Your task to perform on an android device: turn notification dots off Image 0: 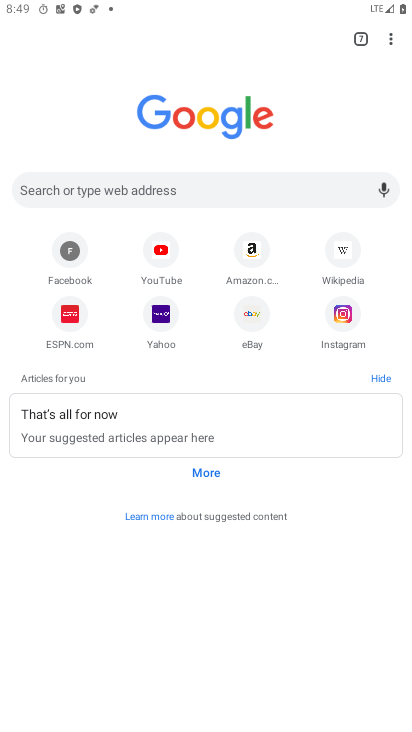
Step 0: press home button
Your task to perform on an android device: turn notification dots off Image 1: 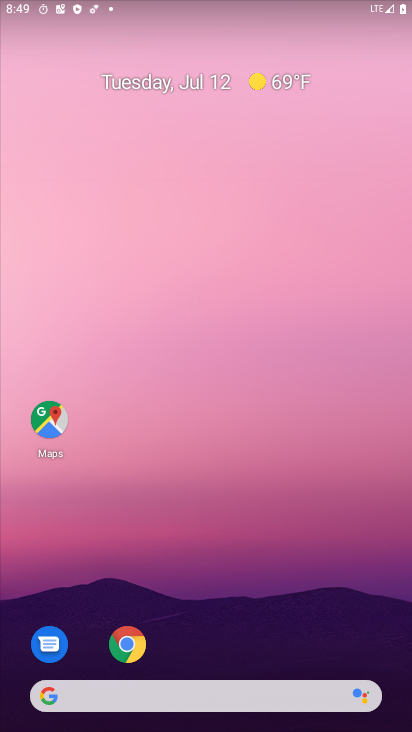
Step 1: drag from (210, 657) to (220, 38)
Your task to perform on an android device: turn notification dots off Image 2: 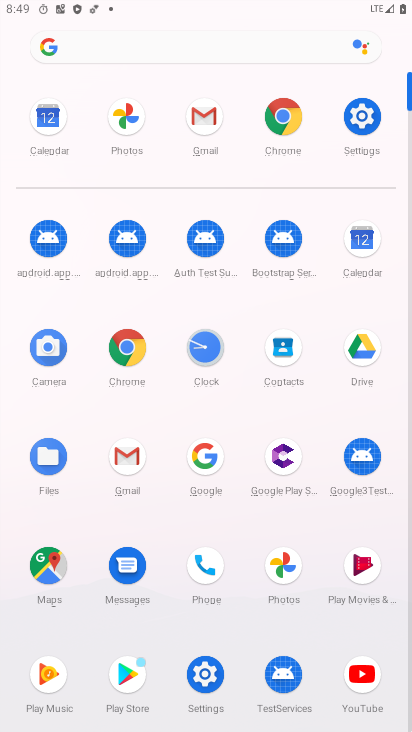
Step 2: click (360, 112)
Your task to perform on an android device: turn notification dots off Image 3: 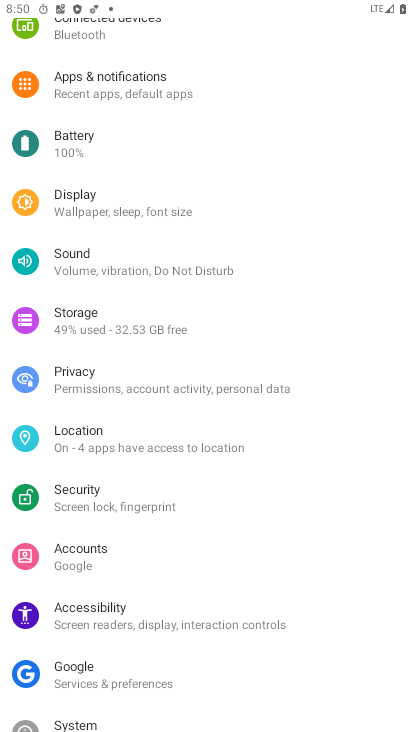
Step 3: click (139, 80)
Your task to perform on an android device: turn notification dots off Image 4: 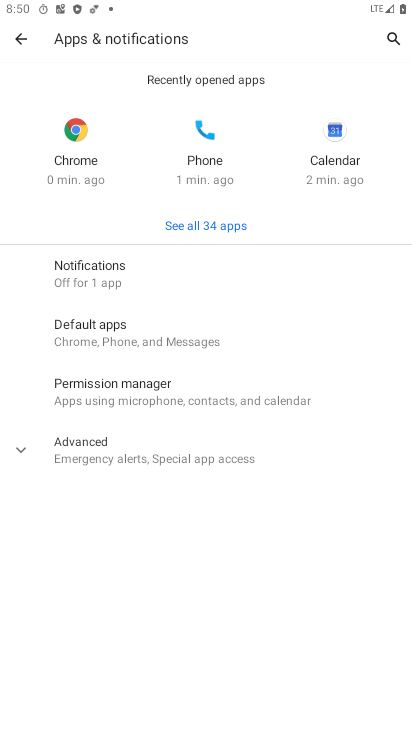
Step 4: click (126, 263)
Your task to perform on an android device: turn notification dots off Image 5: 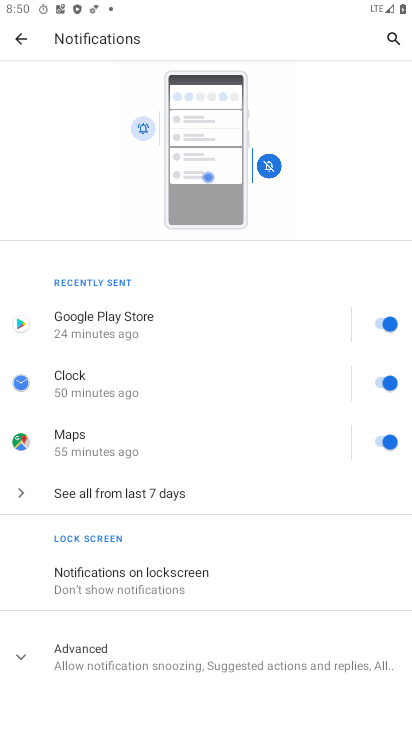
Step 5: click (25, 656)
Your task to perform on an android device: turn notification dots off Image 6: 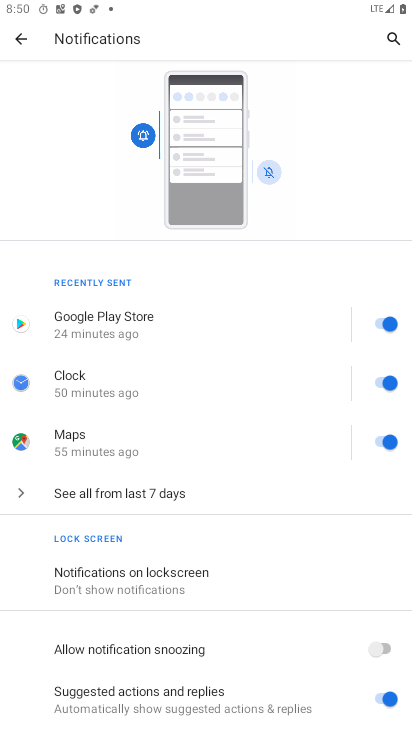
Step 6: drag from (141, 685) to (153, 149)
Your task to perform on an android device: turn notification dots off Image 7: 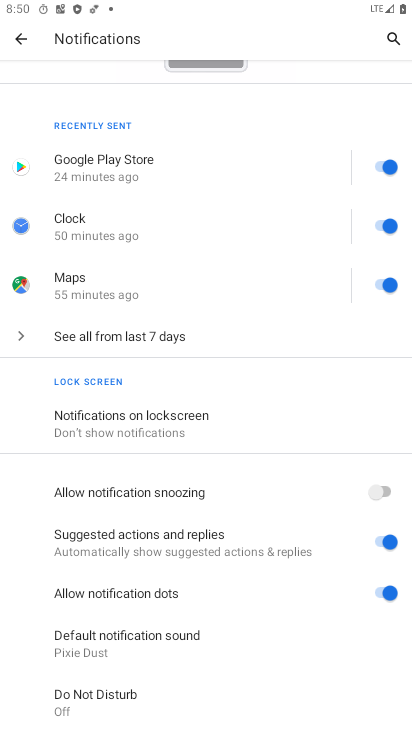
Step 7: click (392, 589)
Your task to perform on an android device: turn notification dots off Image 8: 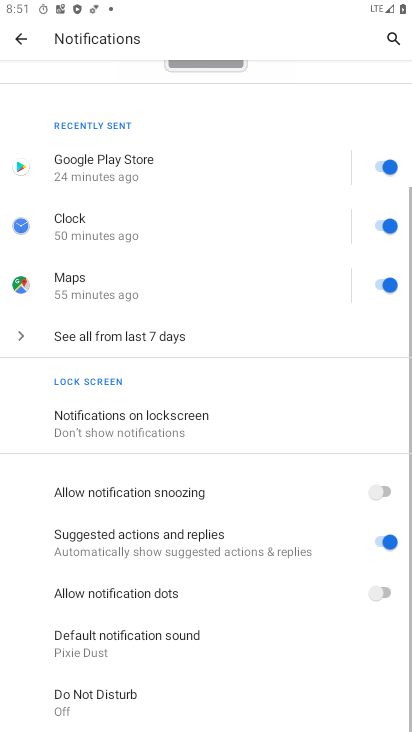
Step 8: task complete